Your task to perform on an android device: Open Reddit.com Image 0: 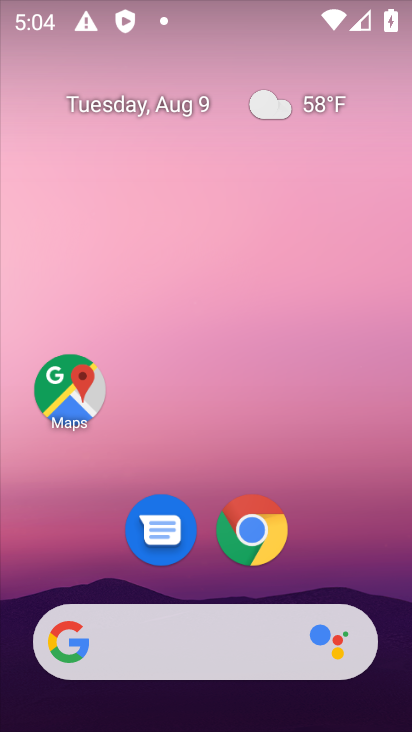
Step 0: click (226, 683)
Your task to perform on an android device: Open Reddit.com Image 1: 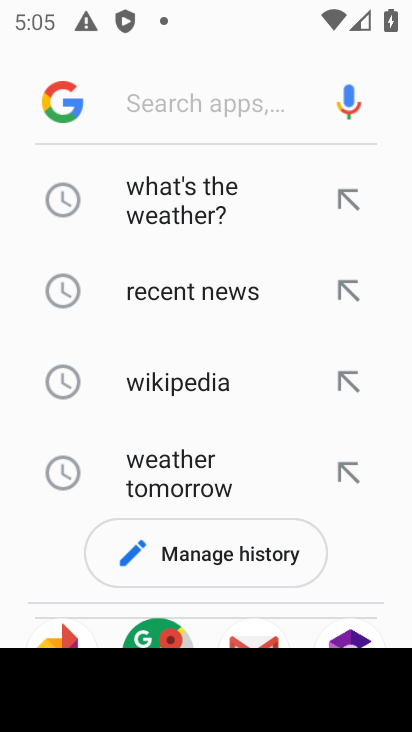
Step 1: type "reddit.com"
Your task to perform on an android device: Open Reddit.com Image 2: 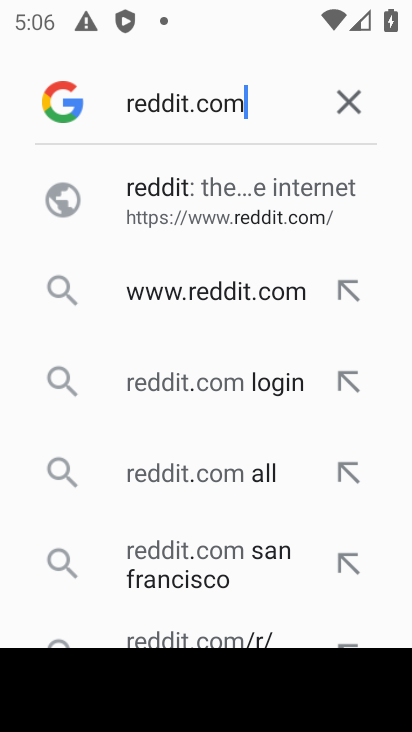
Step 2: click (323, 199)
Your task to perform on an android device: Open Reddit.com Image 3: 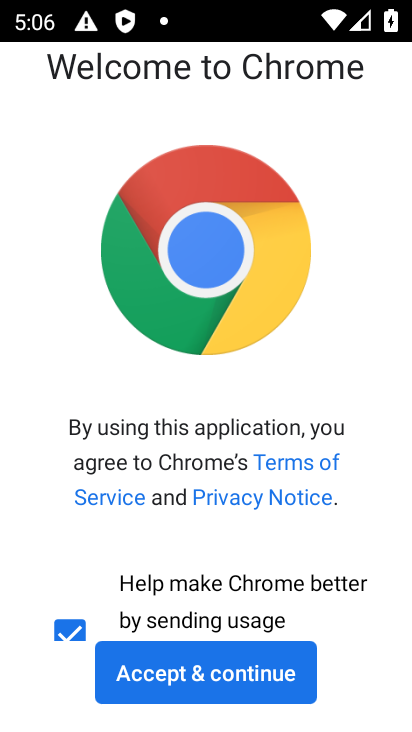
Step 3: click (210, 675)
Your task to perform on an android device: Open Reddit.com Image 4: 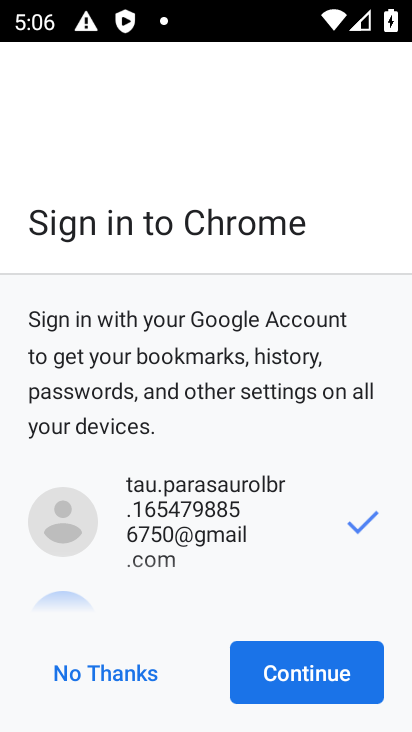
Step 4: click (342, 667)
Your task to perform on an android device: Open Reddit.com Image 5: 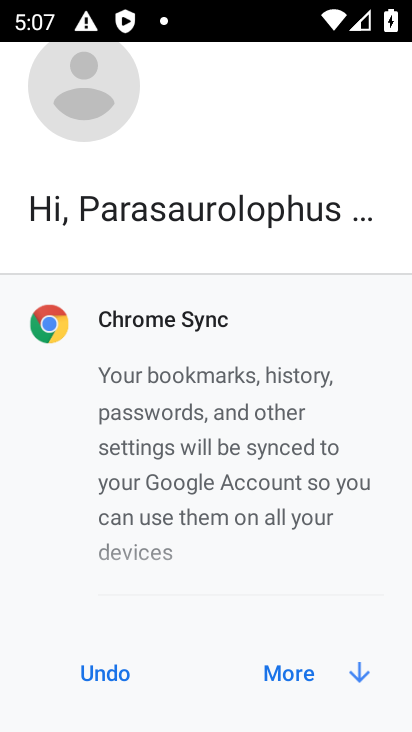
Step 5: click (317, 662)
Your task to perform on an android device: Open Reddit.com Image 6: 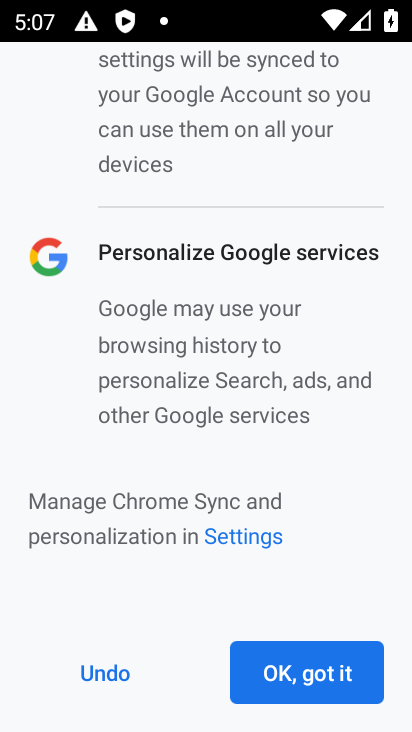
Step 6: click (355, 661)
Your task to perform on an android device: Open Reddit.com Image 7: 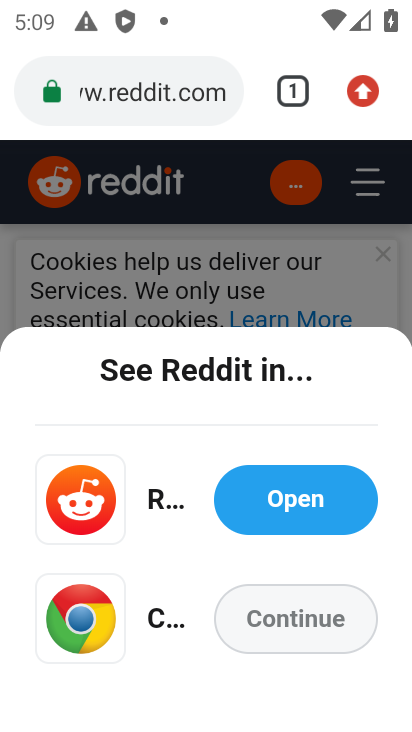
Step 7: task complete